Your task to perform on an android device: show emergency info Image 0: 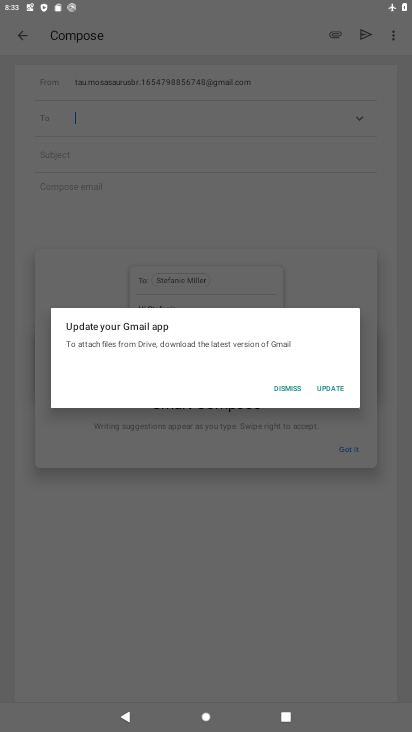
Step 0: press home button
Your task to perform on an android device: show emergency info Image 1: 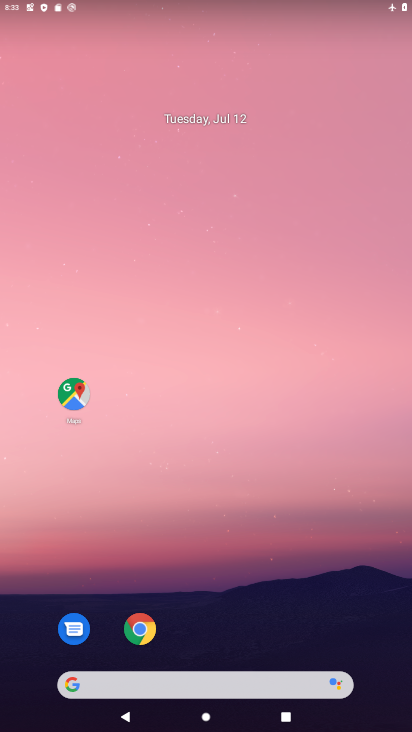
Step 1: drag from (292, 661) to (291, 257)
Your task to perform on an android device: show emergency info Image 2: 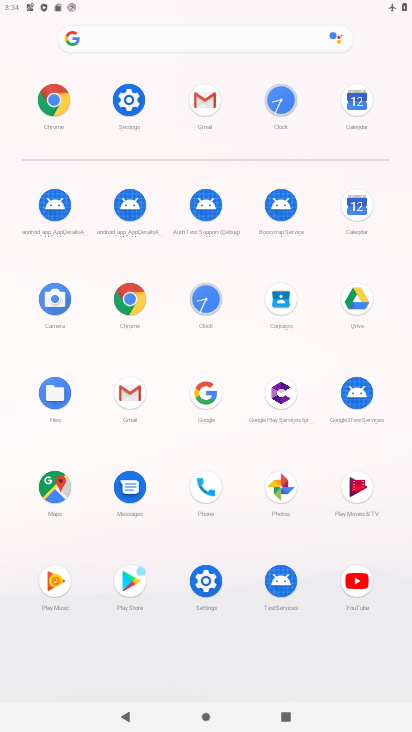
Step 2: click (133, 91)
Your task to perform on an android device: show emergency info Image 3: 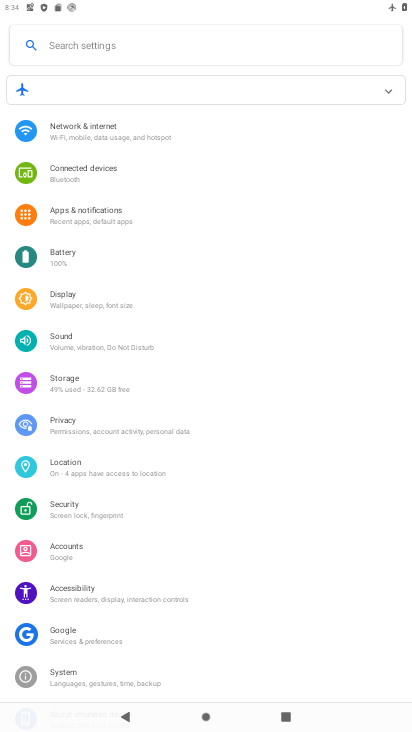
Step 3: drag from (183, 654) to (234, 292)
Your task to perform on an android device: show emergency info Image 4: 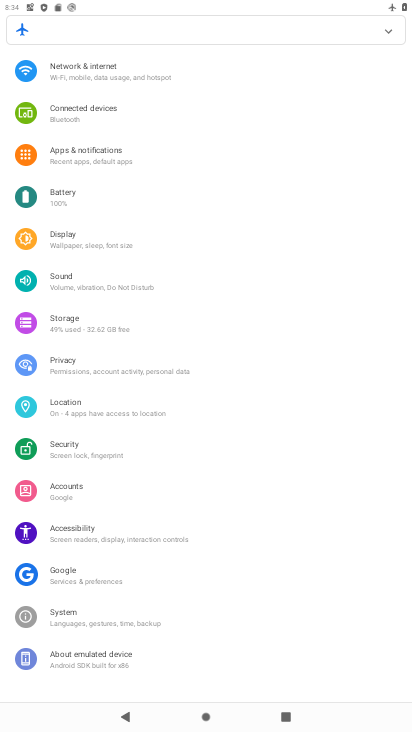
Step 4: click (92, 653)
Your task to perform on an android device: show emergency info Image 5: 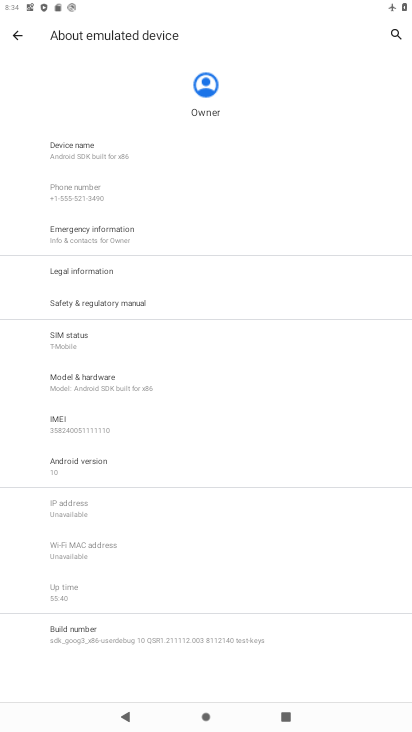
Step 5: click (116, 229)
Your task to perform on an android device: show emergency info Image 6: 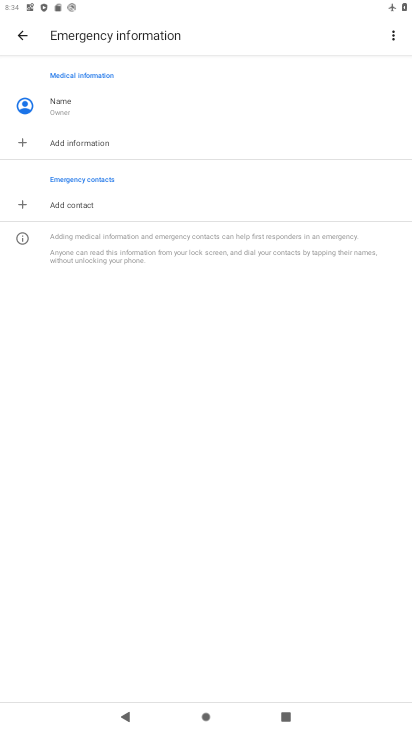
Step 6: task complete